Your task to perform on an android device: clear history in the chrome app Image 0: 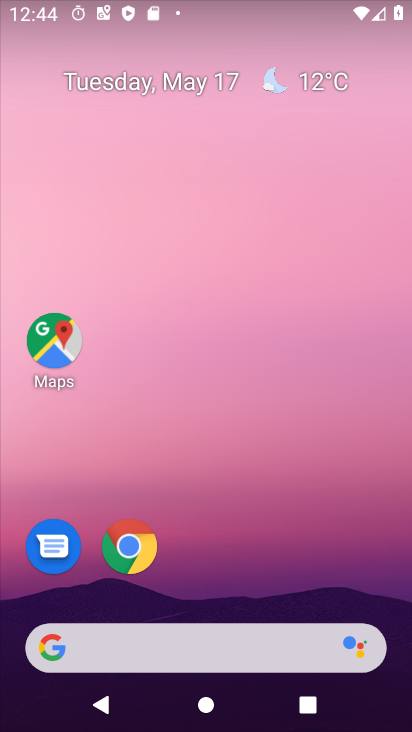
Step 0: press home button
Your task to perform on an android device: clear history in the chrome app Image 1: 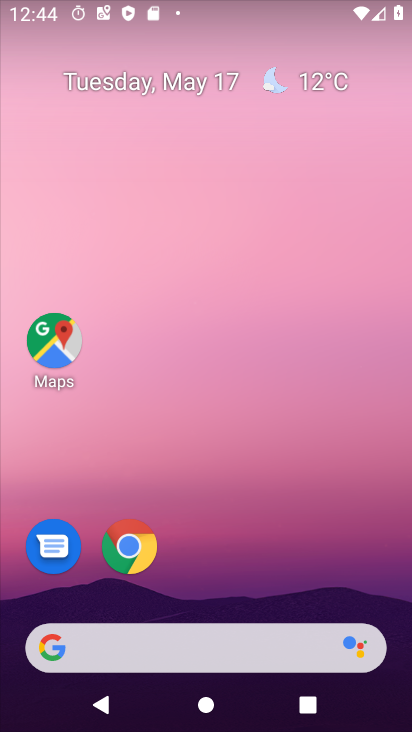
Step 1: click (130, 550)
Your task to perform on an android device: clear history in the chrome app Image 2: 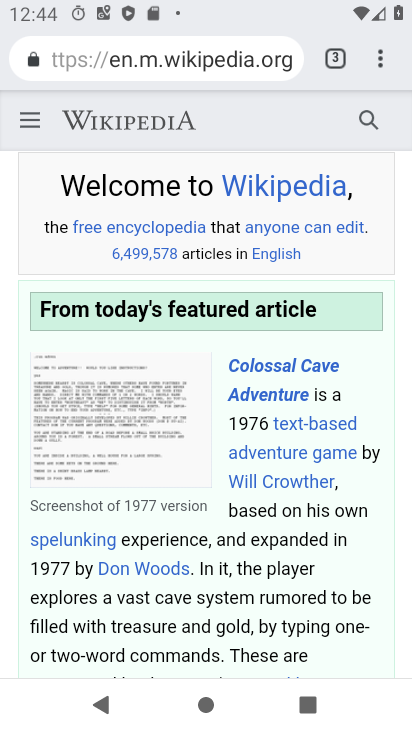
Step 2: drag from (374, 65) to (169, 336)
Your task to perform on an android device: clear history in the chrome app Image 3: 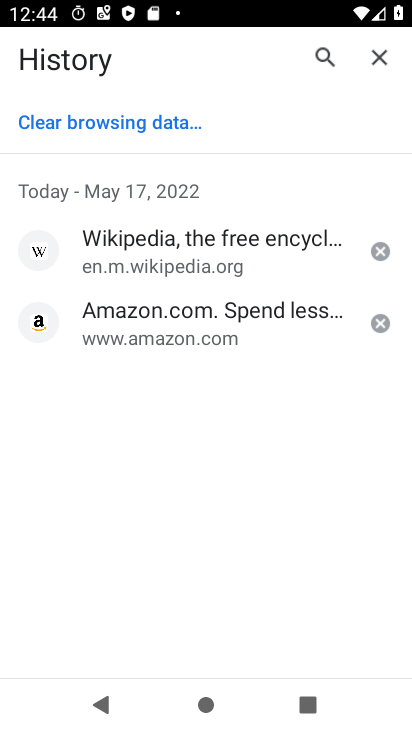
Step 3: click (141, 118)
Your task to perform on an android device: clear history in the chrome app Image 4: 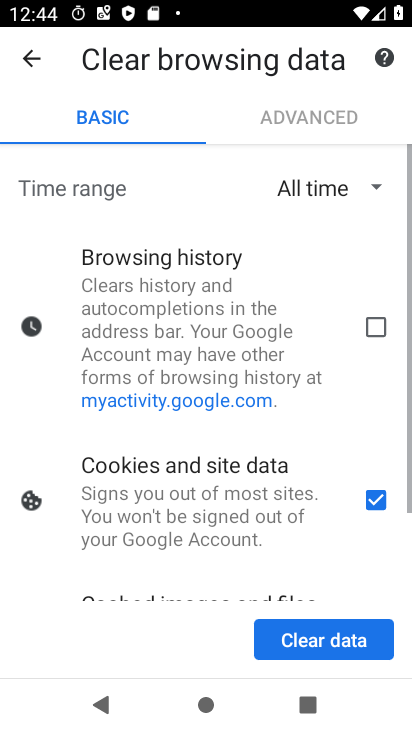
Step 4: click (375, 333)
Your task to perform on an android device: clear history in the chrome app Image 5: 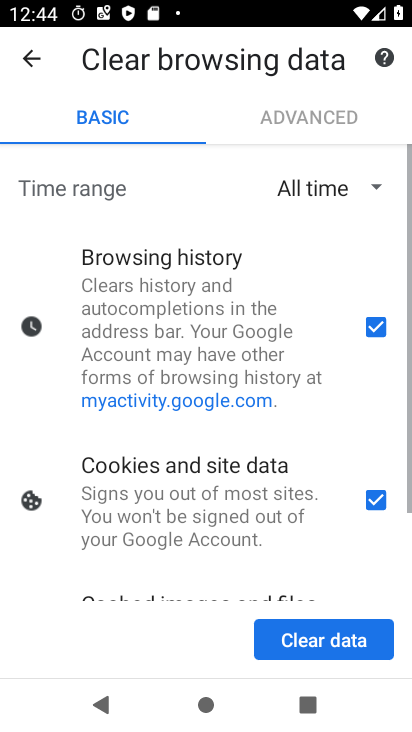
Step 5: drag from (244, 521) to (329, 255)
Your task to perform on an android device: clear history in the chrome app Image 6: 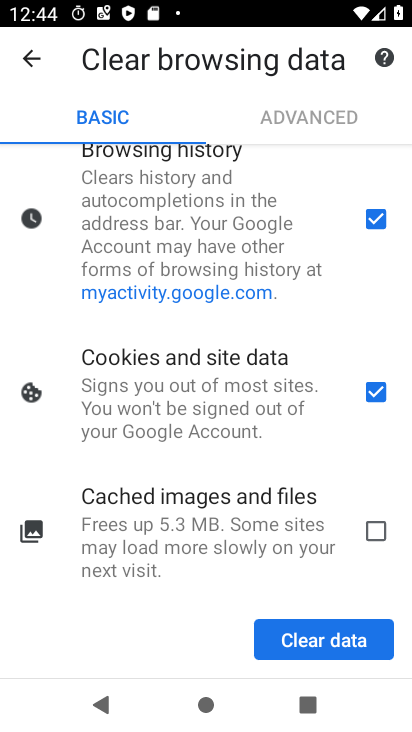
Step 6: click (377, 530)
Your task to perform on an android device: clear history in the chrome app Image 7: 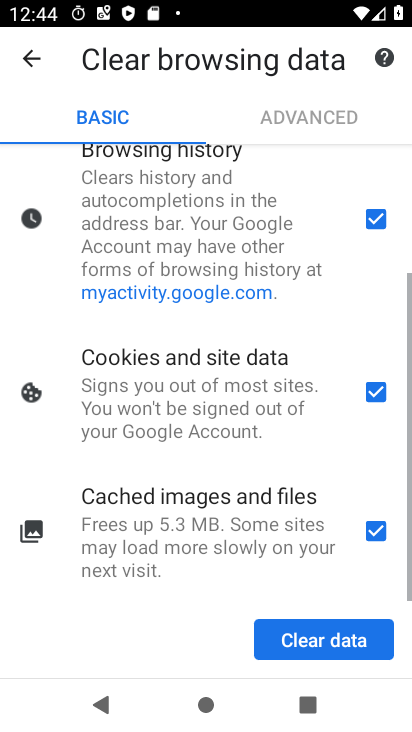
Step 7: click (339, 645)
Your task to perform on an android device: clear history in the chrome app Image 8: 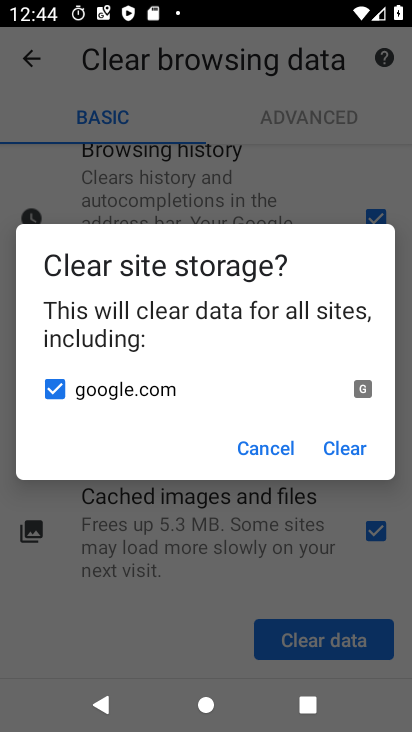
Step 8: click (350, 446)
Your task to perform on an android device: clear history in the chrome app Image 9: 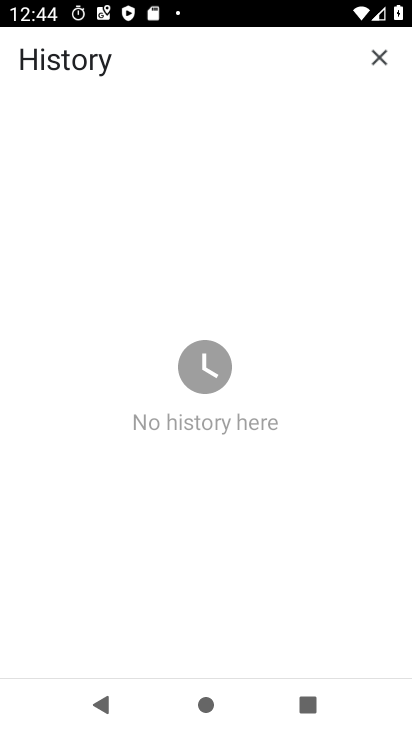
Step 9: task complete